Your task to perform on an android device: Go to settings Image 0: 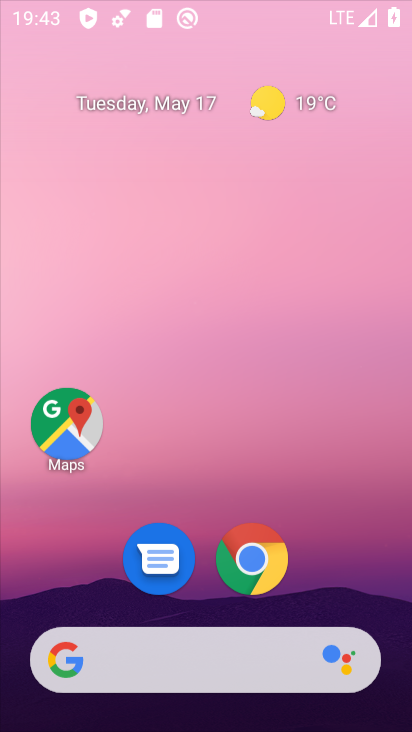
Step 0: drag from (241, 219) to (241, 139)
Your task to perform on an android device: Go to settings Image 1: 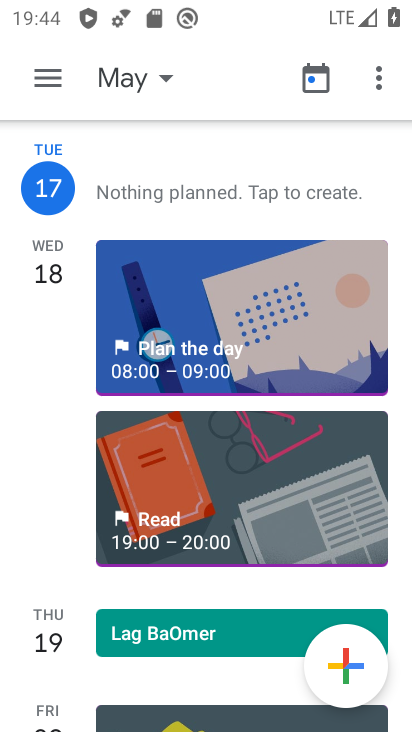
Step 1: press home button
Your task to perform on an android device: Go to settings Image 2: 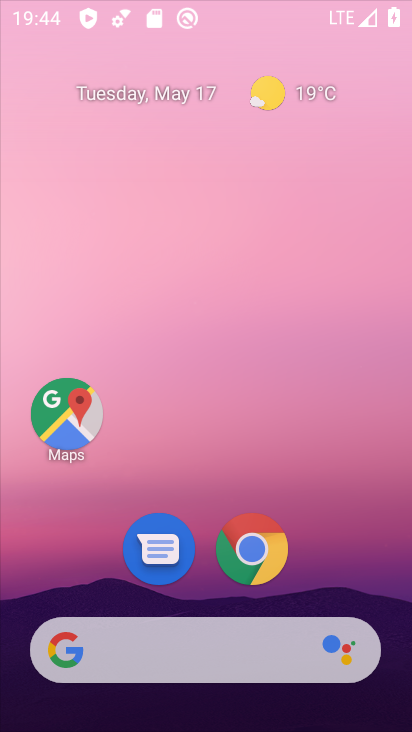
Step 2: drag from (236, 647) to (275, 151)
Your task to perform on an android device: Go to settings Image 3: 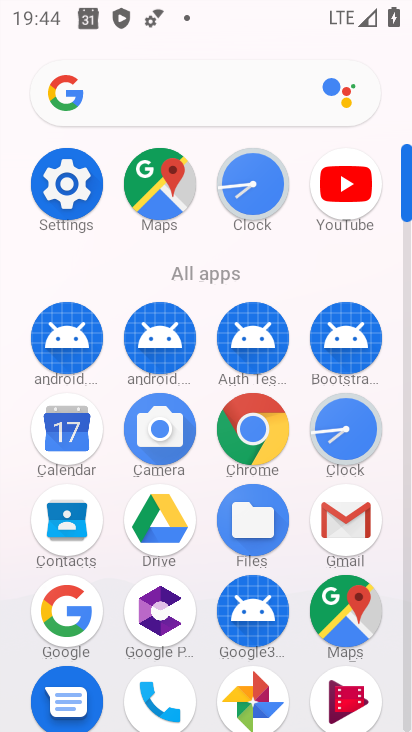
Step 3: click (69, 196)
Your task to perform on an android device: Go to settings Image 4: 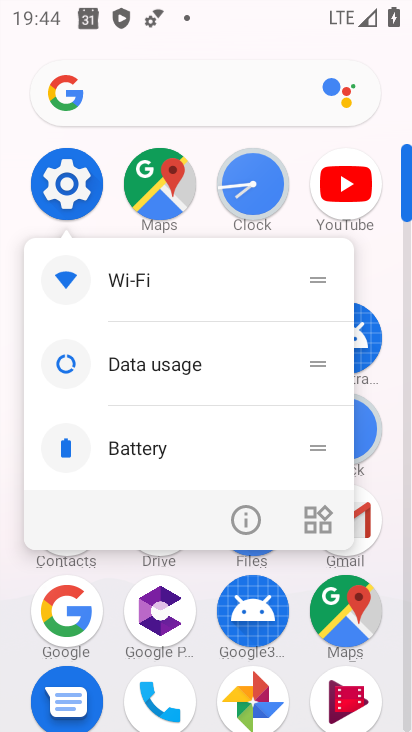
Step 4: click (248, 510)
Your task to perform on an android device: Go to settings Image 5: 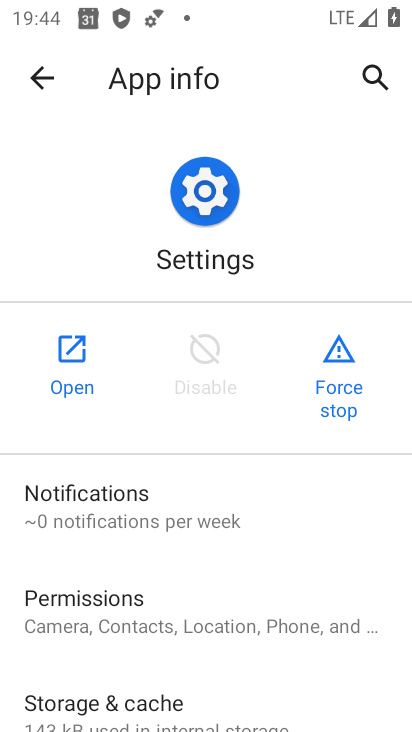
Step 5: click (85, 308)
Your task to perform on an android device: Go to settings Image 6: 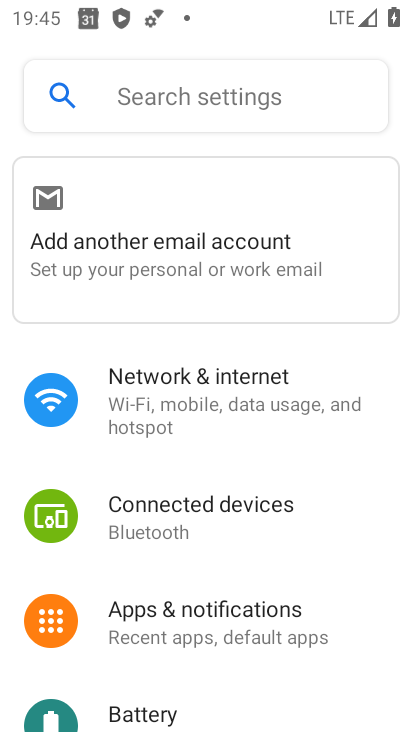
Step 6: task complete